Your task to perform on an android device: turn on showing notifications on the lock screen Image 0: 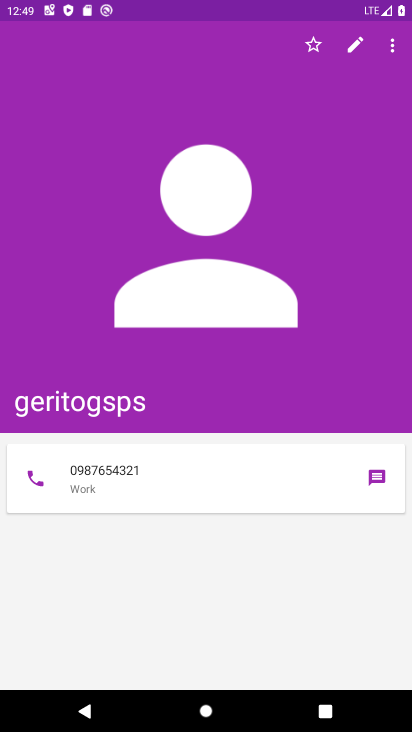
Step 0: press home button
Your task to perform on an android device: turn on showing notifications on the lock screen Image 1: 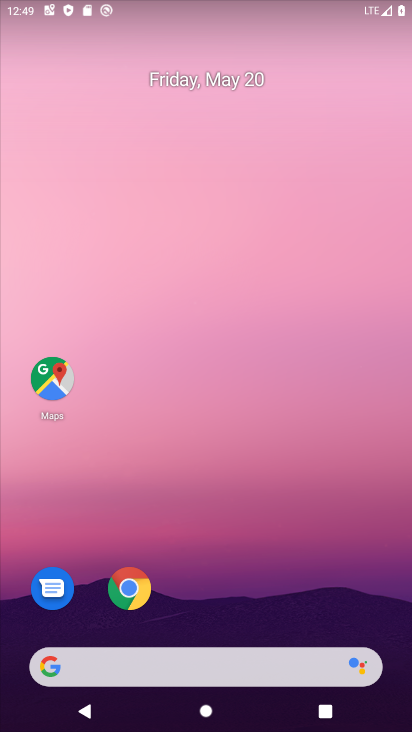
Step 1: drag from (380, 624) to (301, 16)
Your task to perform on an android device: turn on showing notifications on the lock screen Image 2: 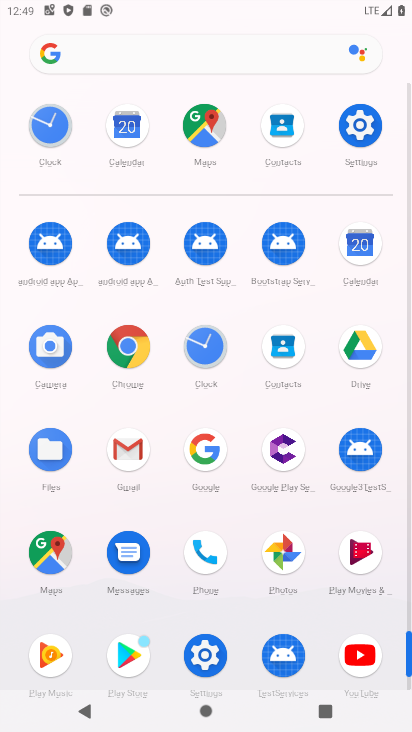
Step 2: click (205, 656)
Your task to perform on an android device: turn on showing notifications on the lock screen Image 3: 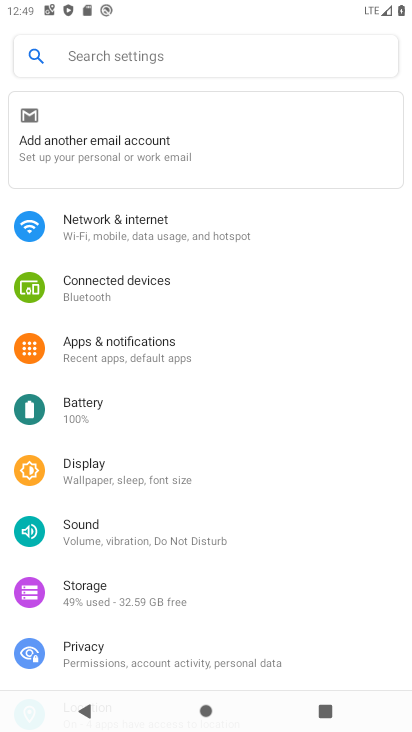
Step 3: click (111, 347)
Your task to perform on an android device: turn on showing notifications on the lock screen Image 4: 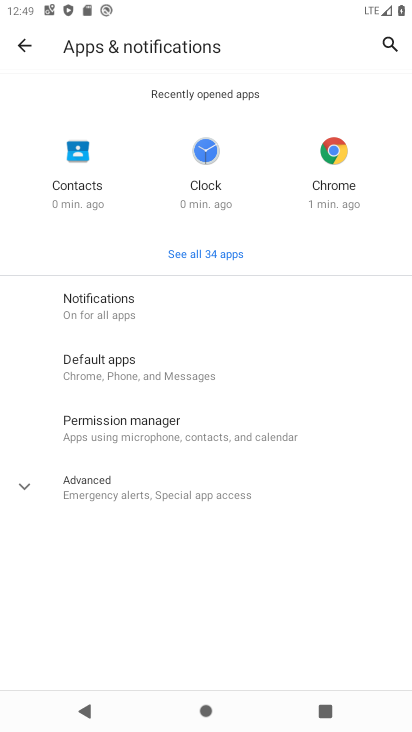
Step 4: click (107, 302)
Your task to perform on an android device: turn on showing notifications on the lock screen Image 5: 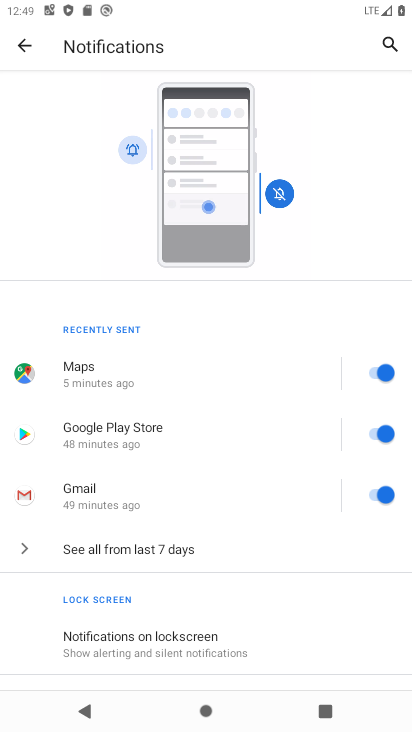
Step 5: drag from (264, 670) to (186, 215)
Your task to perform on an android device: turn on showing notifications on the lock screen Image 6: 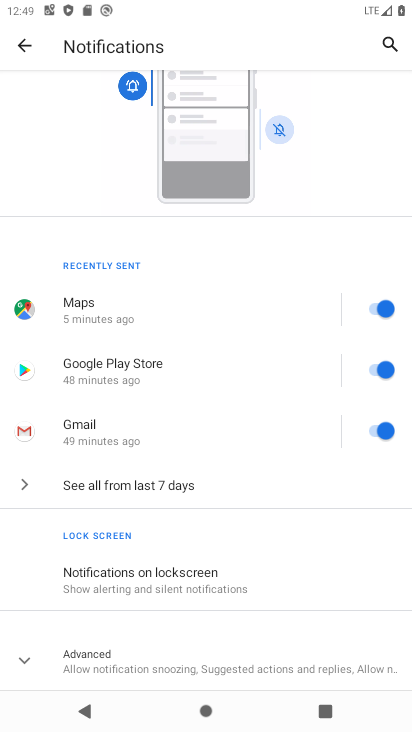
Step 6: click (150, 568)
Your task to perform on an android device: turn on showing notifications on the lock screen Image 7: 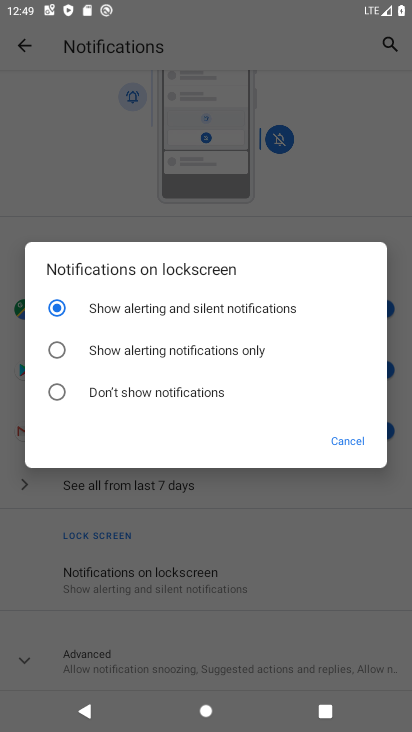
Step 7: task complete